Your task to perform on an android device: add a label to a message in the gmail app Image 0: 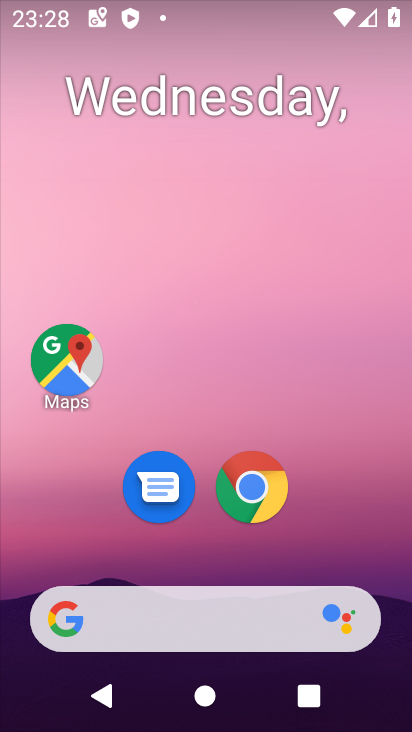
Step 0: drag from (382, 591) to (387, 52)
Your task to perform on an android device: add a label to a message in the gmail app Image 1: 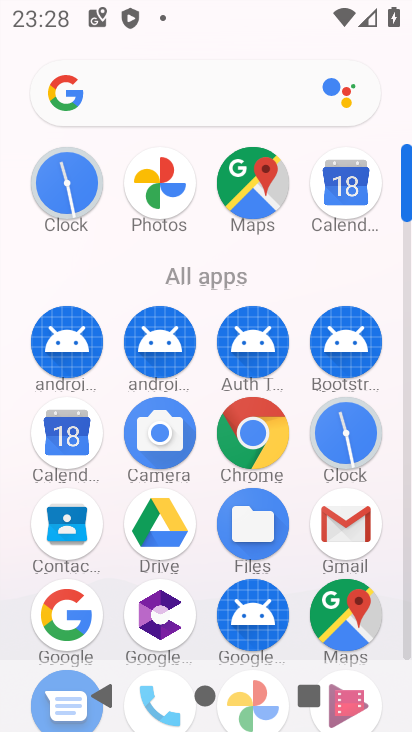
Step 1: click (343, 532)
Your task to perform on an android device: add a label to a message in the gmail app Image 2: 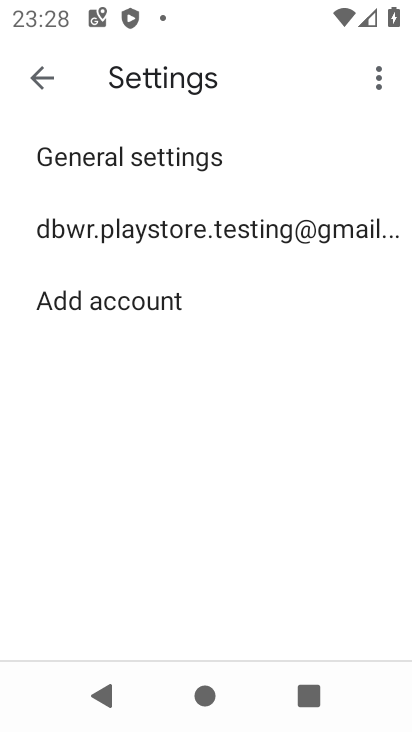
Step 2: click (39, 85)
Your task to perform on an android device: add a label to a message in the gmail app Image 3: 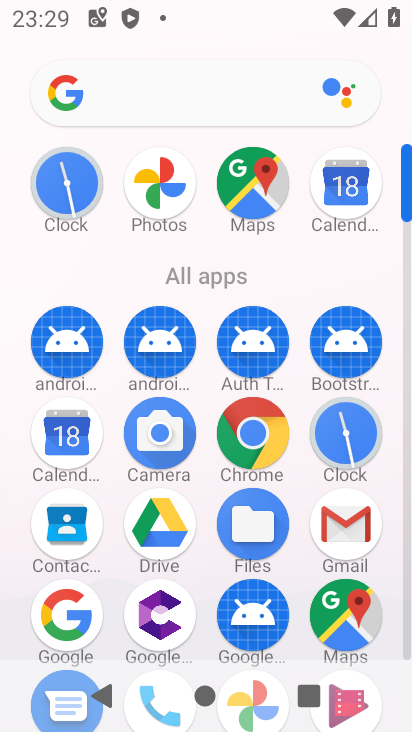
Step 3: click (339, 532)
Your task to perform on an android device: add a label to a message in the gmail app Image 4: 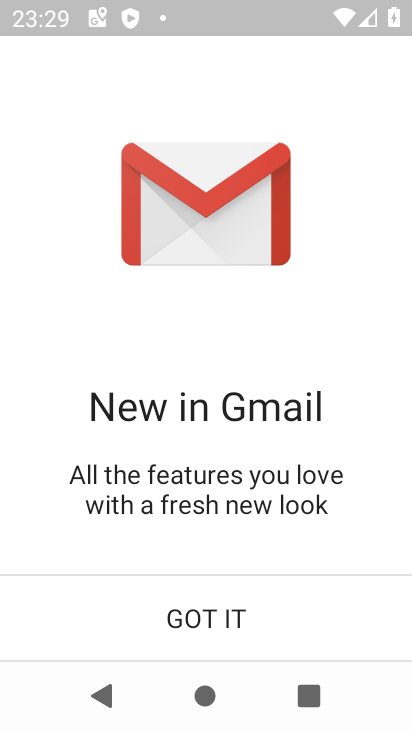
Step 4: click (219, 618)
Your task to perform on an android device: add a label to a message in the gmail app Image 5: 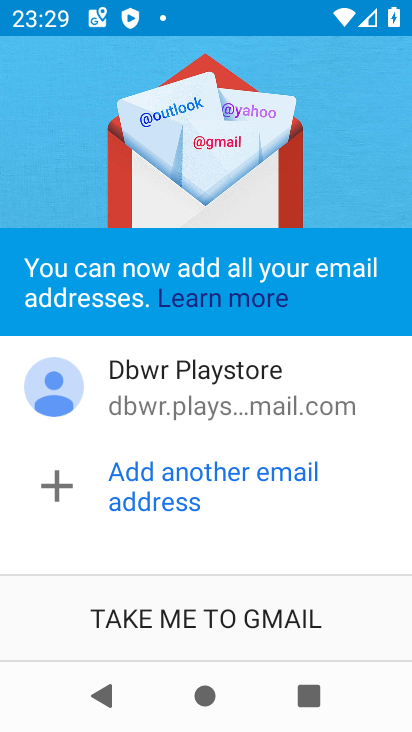
Step 5: click (216, 617)
Your task to perform on an android device: add a label to a message in the gmail app Image 6: 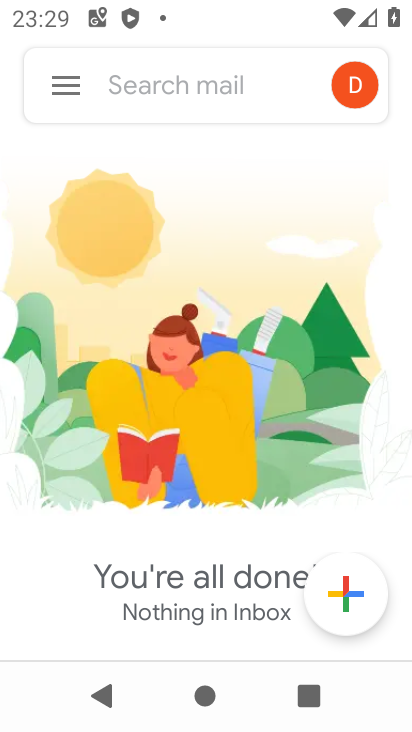
Step 6: click (61, 92)
Your task to perform on an android device: add a label to a message in the gmail app Image 7: 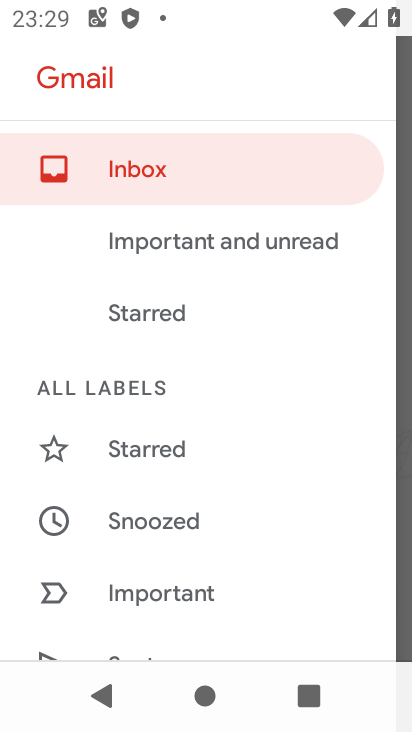
Step 7: drag from (268, 392) to (268, 227)
Your task to perform on an android device: add a label to a message in the gmail app Image 8: 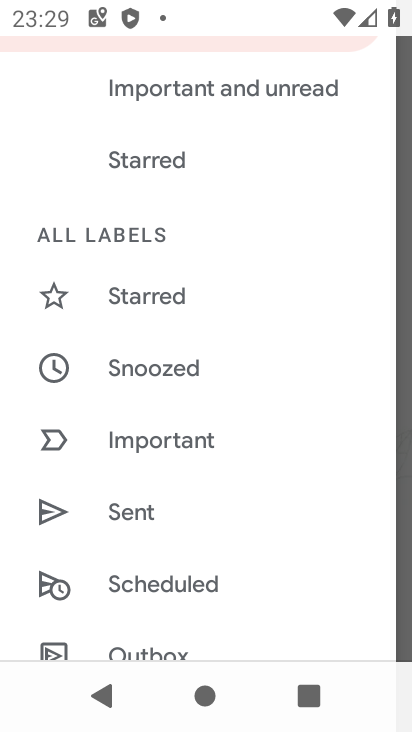
Step 8: drag from (260, 574) to (224, 126)
Your task to perform on an android device: add a label to a message in the gmail app Image 9: 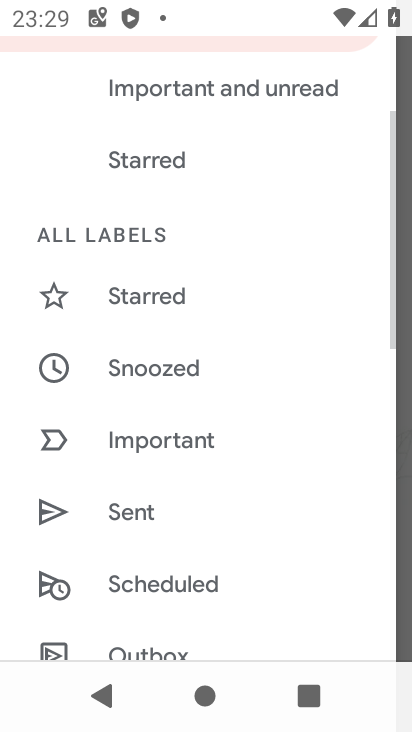
Step 9: drag from (225, 540) to (277, 152)
Your task to perform on an android device: add a label to a message in the gmail app Image 10: 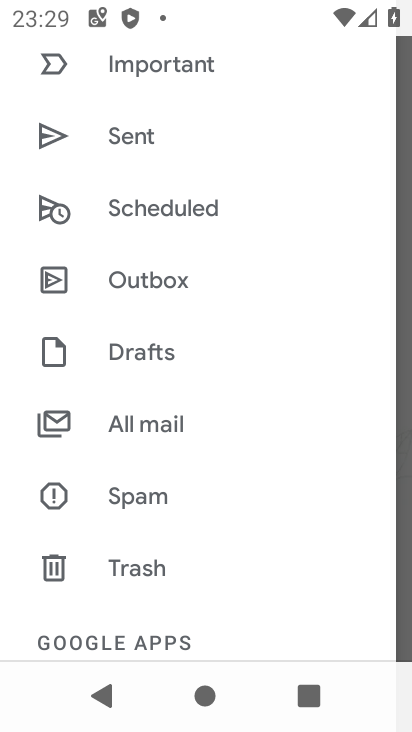
Step 10: click (128, 423)
Your task to perform on an android device: add a label to a message in the gmail app Image 11: 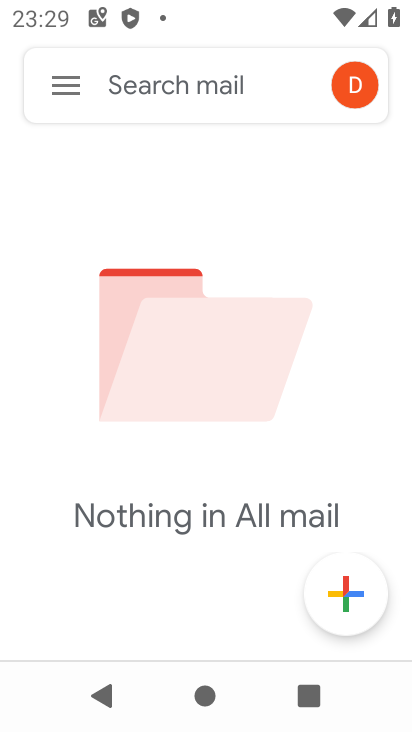
Step 11: task complete